Your task to perform on an android device: empty trash in the gmail app Image 0: 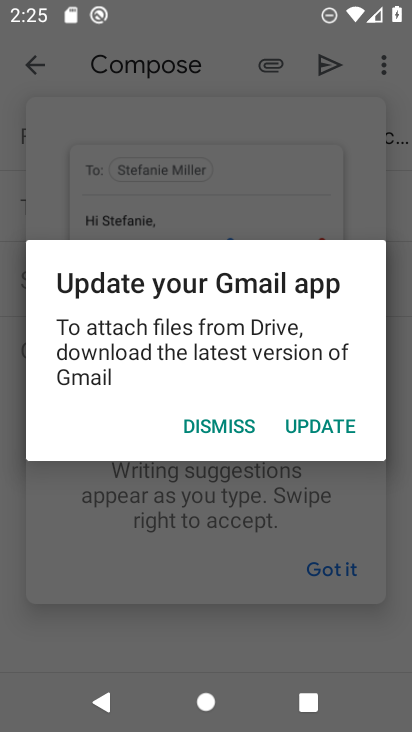
Step 0: press home button
Your task to perform on an android device: empty trash in the gmail app Image 1: 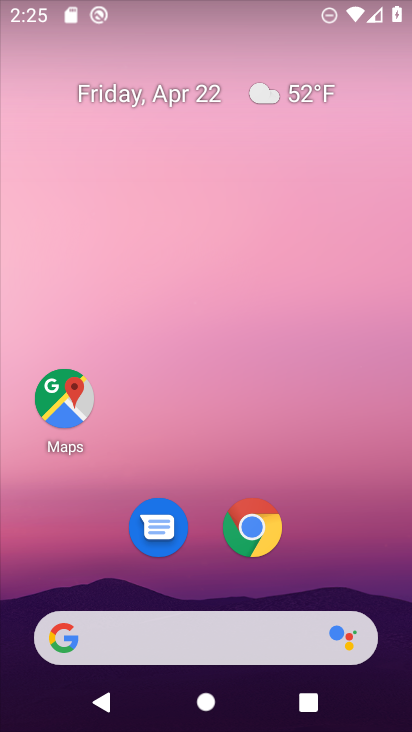
Step 1: drag from (309, 539) to (305, 106)
Your task to perform on an android device: empty trash in the gmail app Image 2: 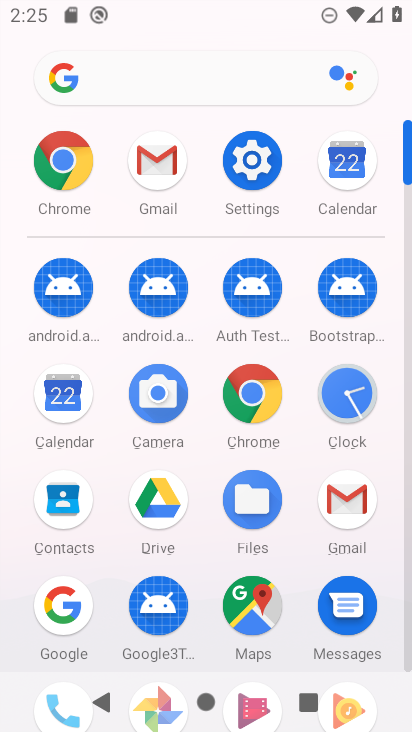
Step 2: click (356, 507)
Your task to perform on an android device: empty trash in the gmail app Image 3: 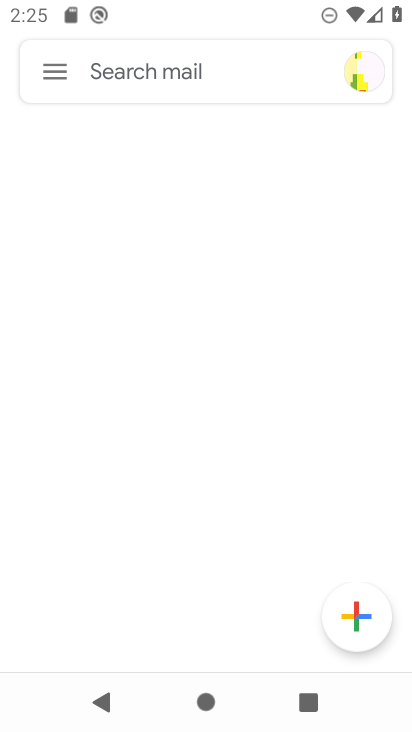
Step 3: click (51, 75)
Your task to perform on an android device: empty trash in the gmail app Image 4: 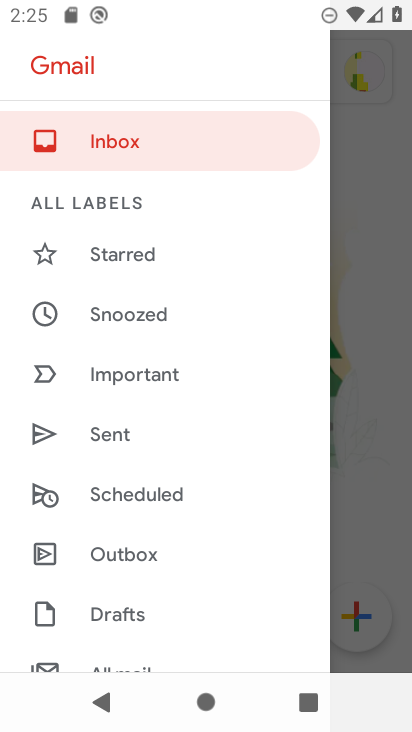
Step 4: drag from (225, 575) to (222, 178)
Your task to perform on an android device: empty trash in the gmail app Image 5: 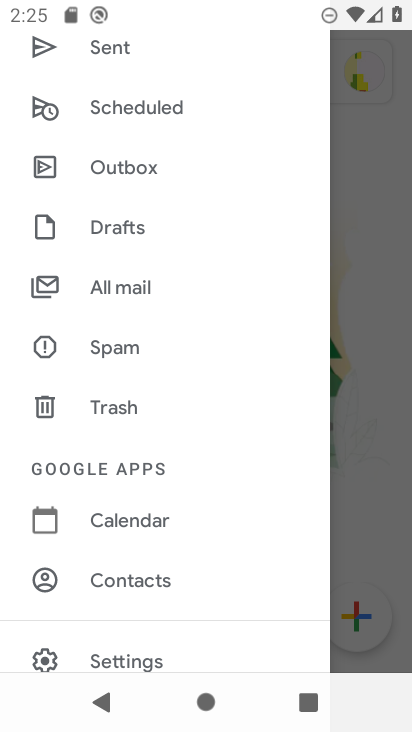
Step 5: click (122, 398)
Your task to perform on an android device: empty trash in the gmail app Image 6: 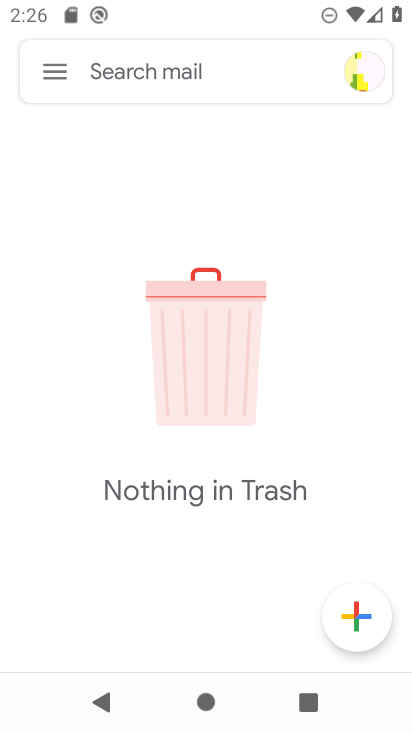
Step 6: task complete